Your task to perform on an android device: Open Youtube and go to the subscriptions tab Image 0: 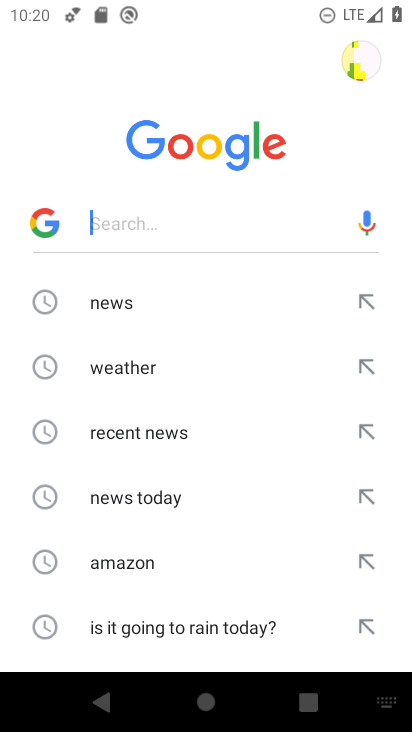
Step 0: press back button
Your task to perform on an android device: Open Youtube and go to the subscriptions tab Image 1: 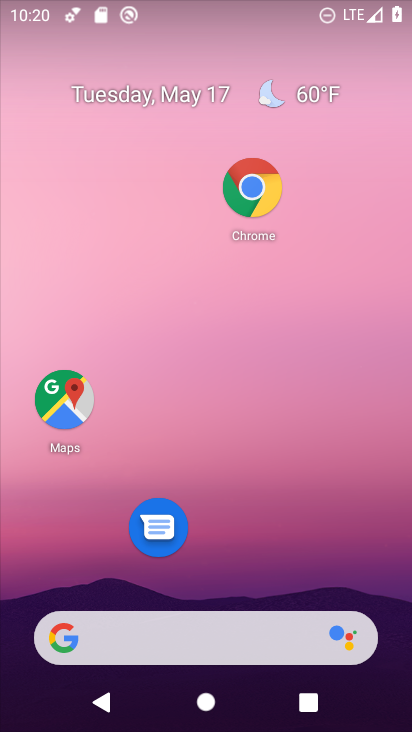
Step 1: drag from (307, 554) to (345, 74)
Your task to perform on an android device: Open Youtube and go to the subscriptions tab Image 2: 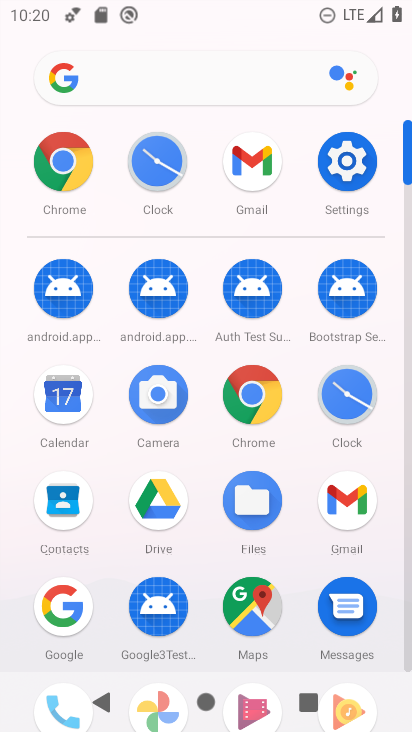
Step 2: click (406, 666)
Your task to perform on an android device: Open Youtube and go to the subscriptions tab Image 3: 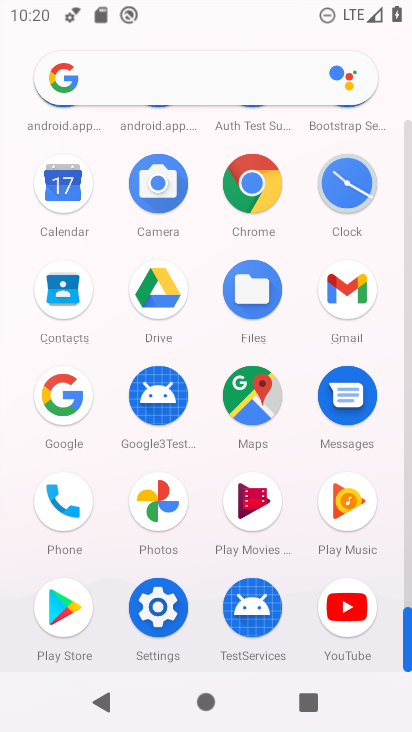
Step 3: click (321, 597)
Your task to perform on an android device: Open Youtube and go to the subscriptions tab Image 4: 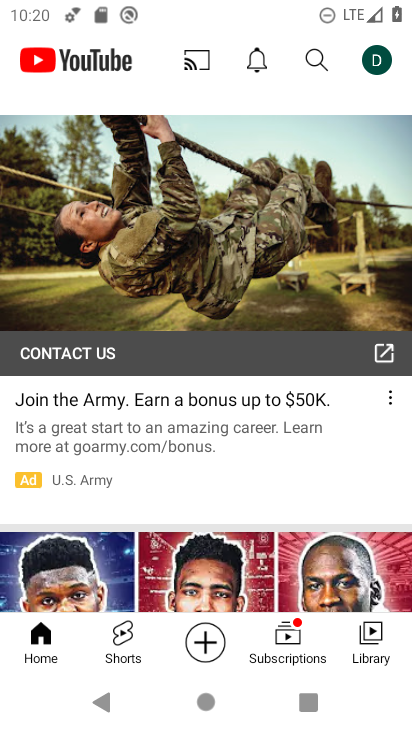
Step 4: click (289, 648)
Your task to perform on an android device: Open Youtube and go to the subscriptions tab Image 5: 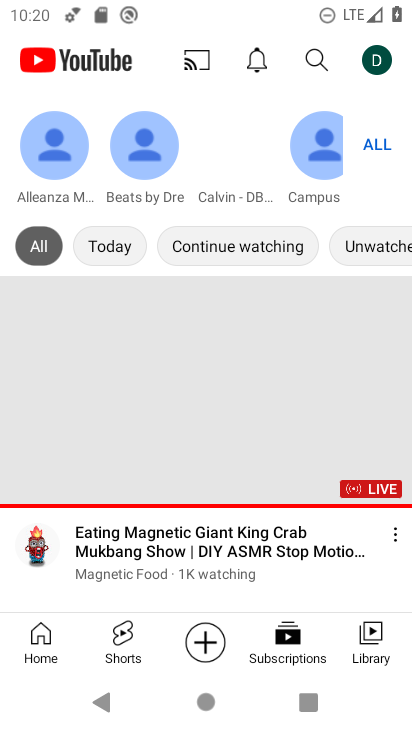
Step 5: task complete